Your task to perform on an android device: turn off translation in the chrome app Image 0: 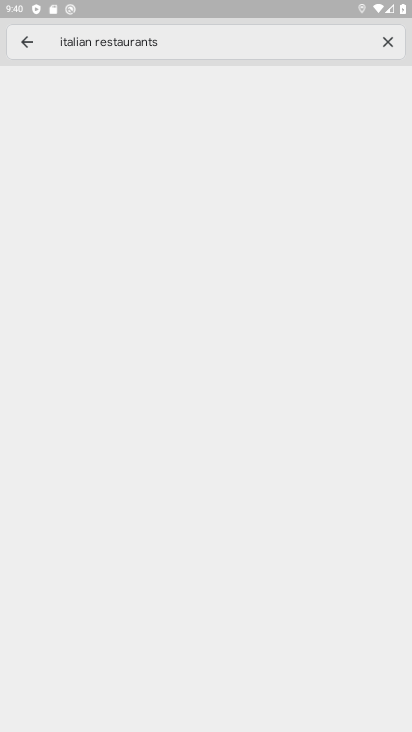
Step 0: press home button
Your task to perform on an android device: turn off translation in the chrome app Image 1: 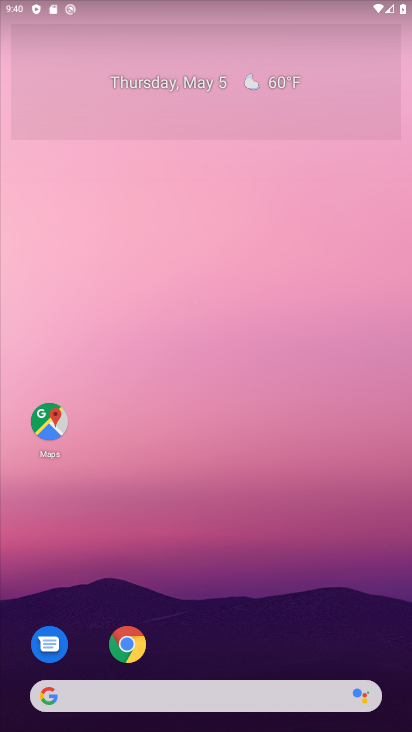
Step 1: drag from (351, 593) to (359, 62)
Your task to perform on an android device: turn off translation in the chrome app Image 2: 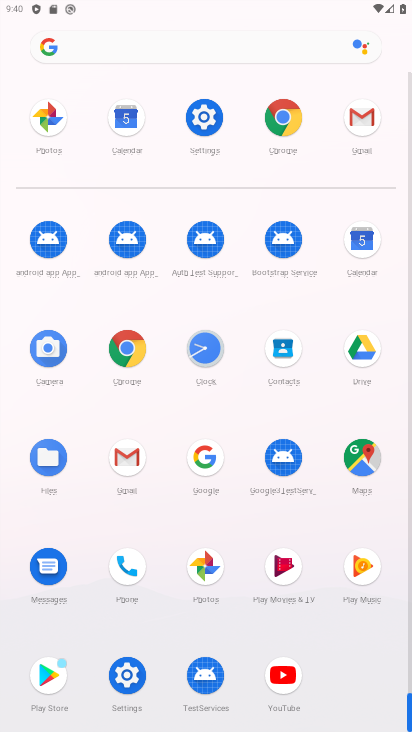
Step 2: click (135, 356)
Your task to perform on an android device: turn off translation in the chrome app Image 3: 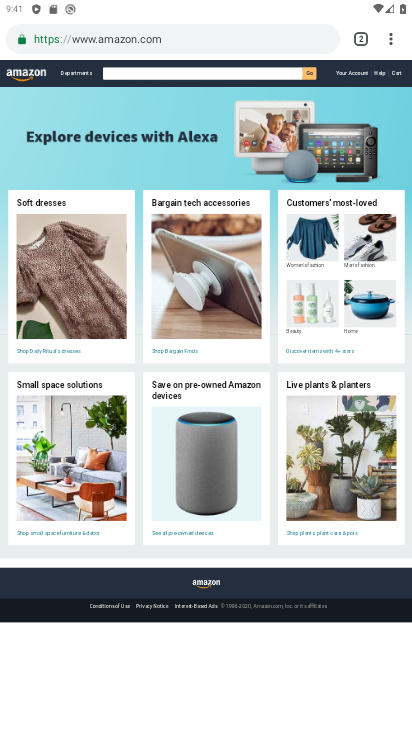
Step 3: drag from (389, 45) to (268, 435)
Your task to perform on an android device: turn off translation in the chrome app Image 4: 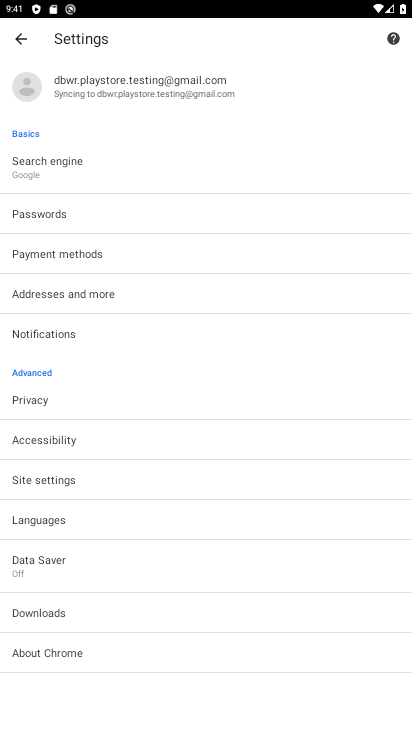
Step 4: click (85, 522)
Your task to perform on an android device: turn off translation in the chrome app Image 5: 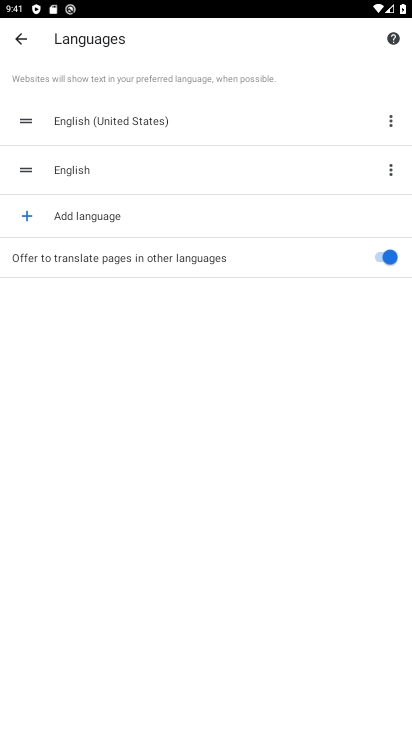
Step 5: click (378, 260)
Your task to perform on an android device: turn off translation in the chrome app Image 6: 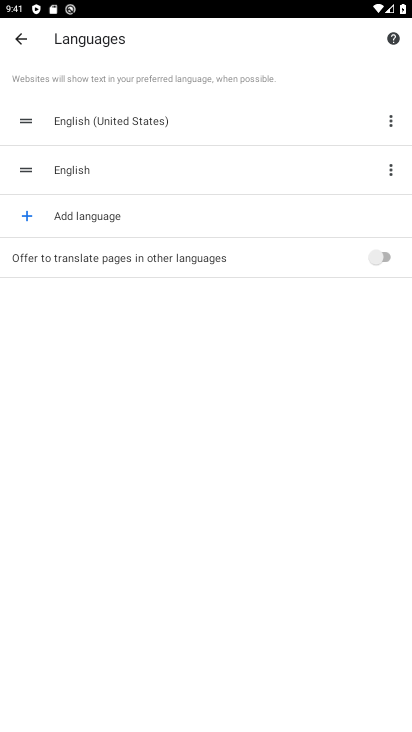
Step 6: task complete